Your task to perform on an android device: Open Youtube and go to the subscriptions tab Image 0: 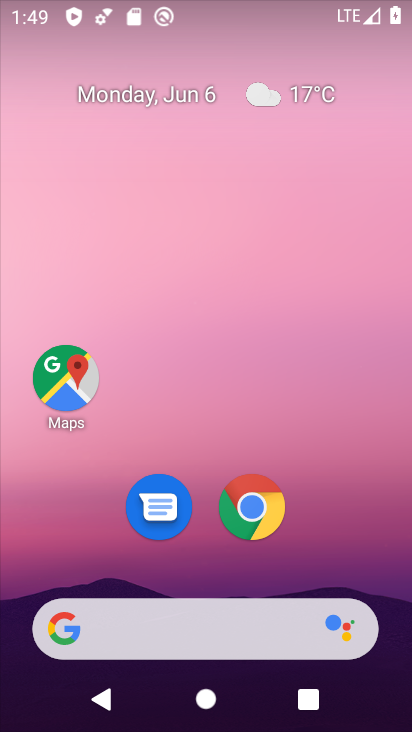
Step 0: drag from (374, 586) to (260, 253)
Your task to perform on an android device: Open Youtube and go to the subscriptions tab Image 1: 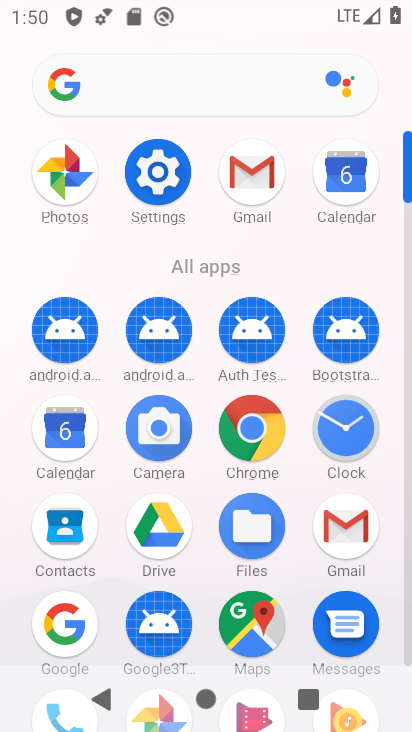
Step 1: click (408, 654)
Your task to perform on an android device: Open Youtube and go to the subscriptions tab Image 2: 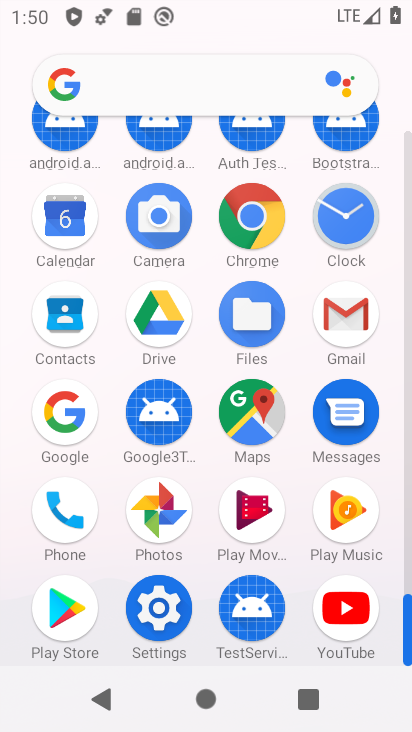
Step 2: click (345, 631)
Your task to perform on an android device: Open Youtube and go to the subscriptions tab Image 3: 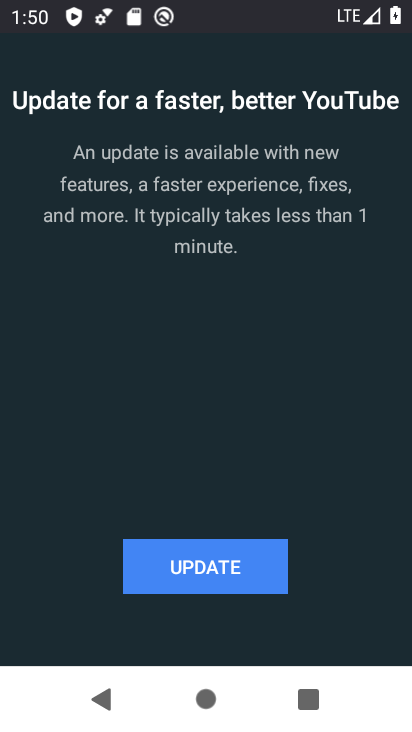
Step 3: click (244, 580)
Your task to perform on an android device: Open Youtube and go to the subscriptions tab Image 4: 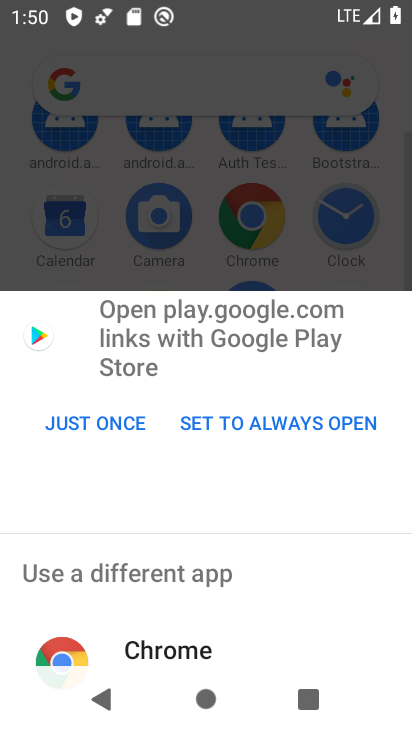
Step 4: drag from (207, 647) to (185, 536)
Your task to perform on an android device: Open Youtube and go to the subscriptions tab Image 5: 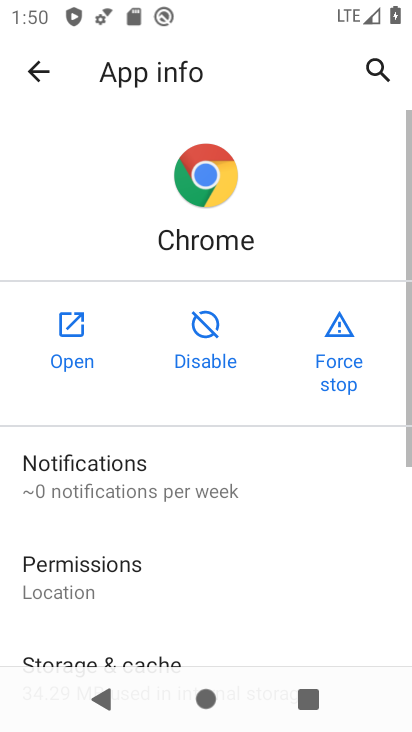
Step 5: click (96, 701)
Your task to perform on an android device: Open Youtube and go to the subscriptions tab Image 6: 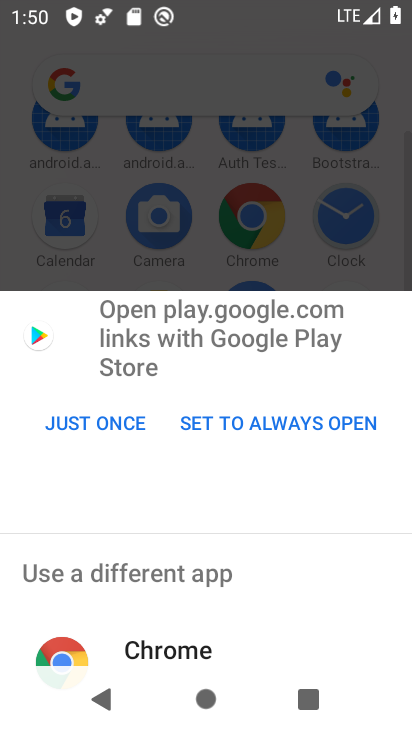
Step 6: click (127, 423)
Your task to perform on an android device: Open Youtube and go to the subscriptions tab Image 7: 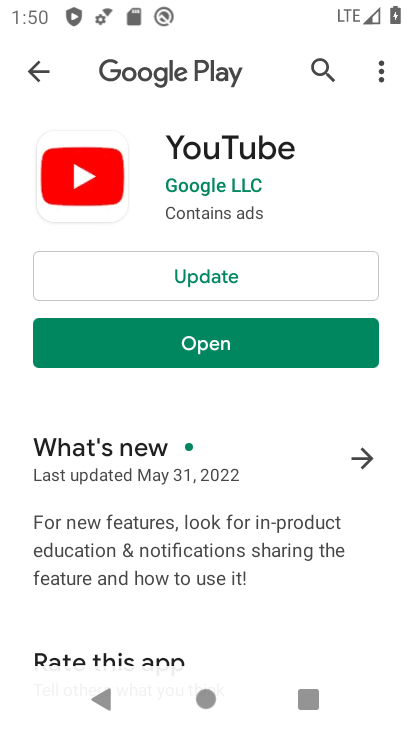
Step 7: click (230, 270)
Your task to perform on an android device: Open Youtube and go to the subscriptions tab Image 8: 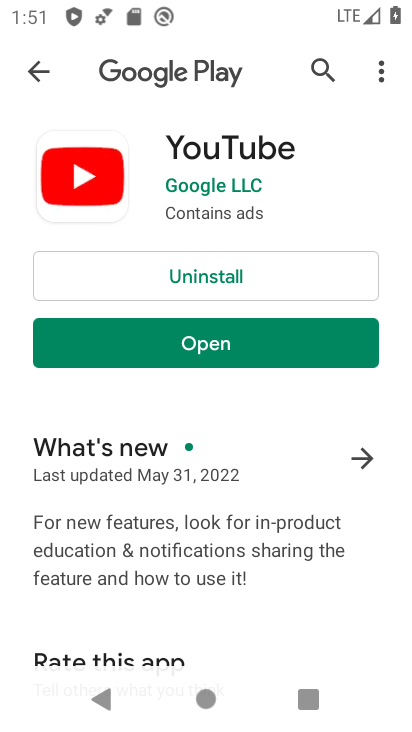
Step 8: click (307, 331)
Your task to perform on an android device: Open Youtube and go to the subscriptions tab Image 9: 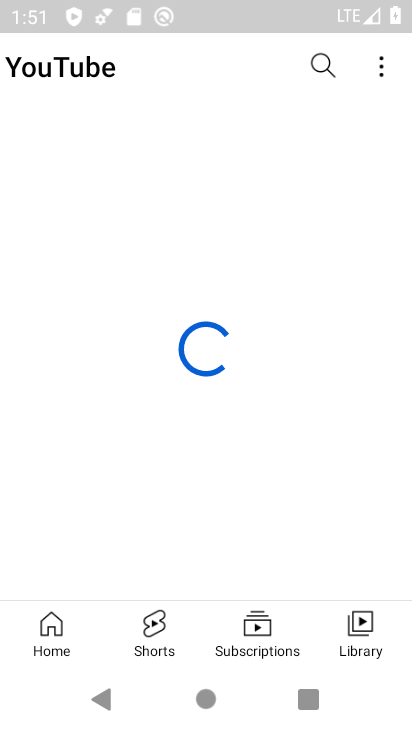
Step 9: click (283, 640)
Your task to perform on an android device: Open Youtube and go to the subscriptions tab Image 10: 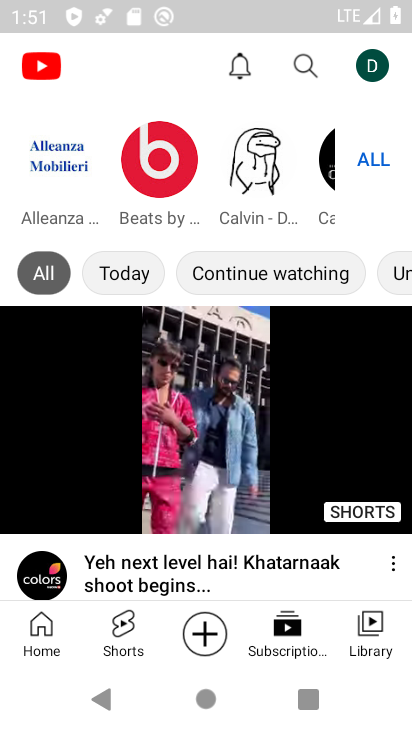
Step 10: task complete